Your task to perform on an android device: Check the weather Image 0: 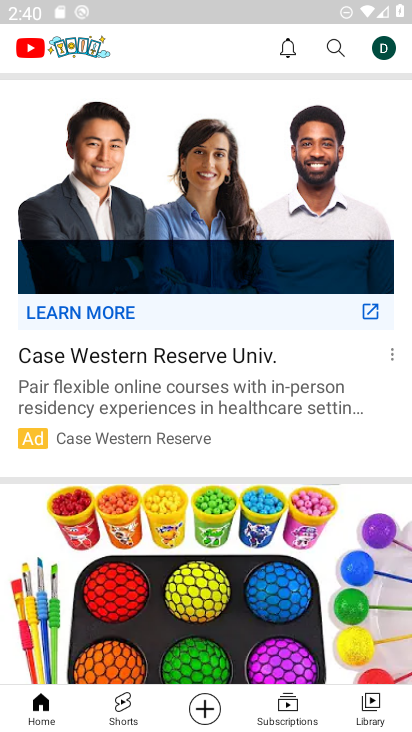
Step 0: press home button
Your task to perform on an android device: Check the weather Image 1: 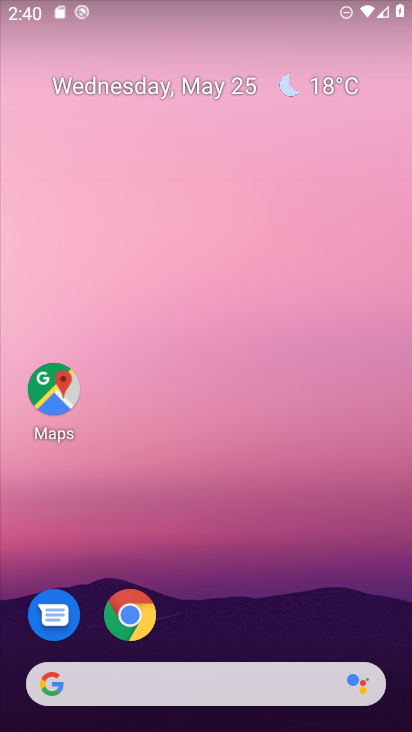
Step 1: click (273, 688)
Your task to perform on an android device: Check the weather Image 2: 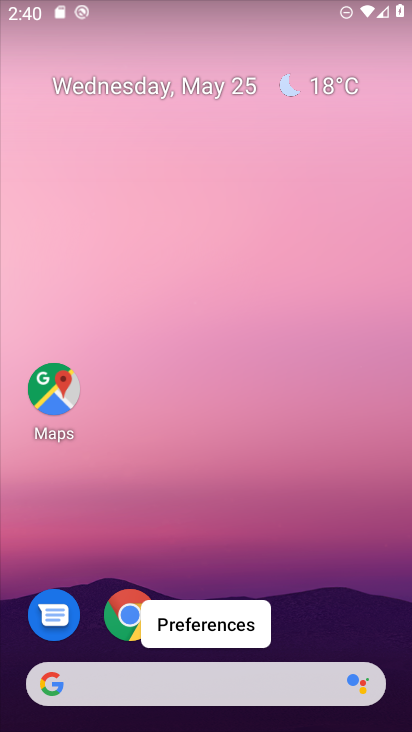
Step 2: click (170, 689)
Your task to perform on an android device: Check the weather Image 3: 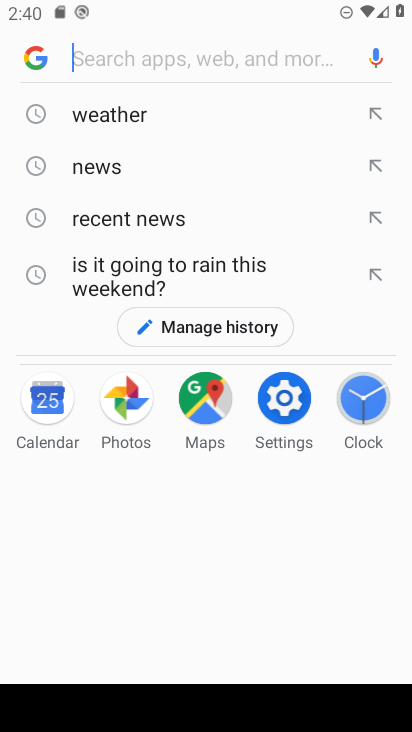
Step 3: click (113, 111)
Your task to perform on an android device: Check the weather Image 4: 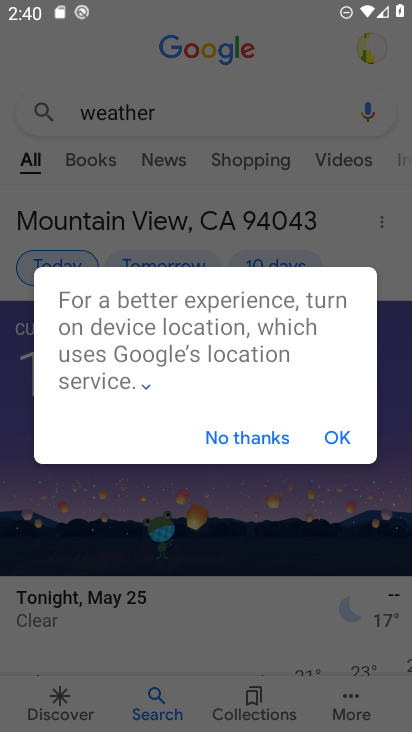
Step 4: click (259, 434)
Your task to perform on an android device: Check the weather Image 5: 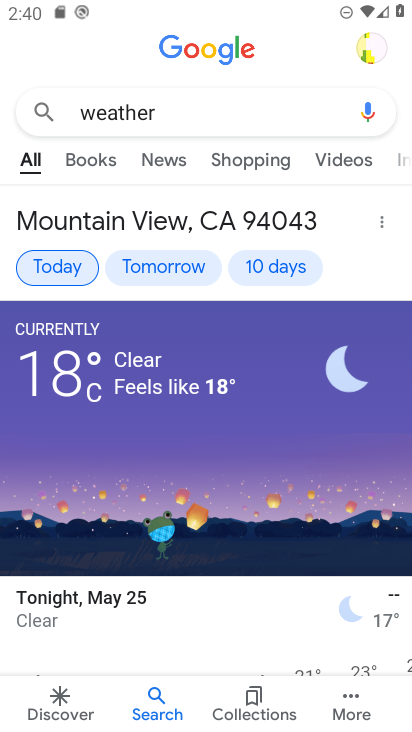
Step 5: click (69, 266)
Your task to perform on an android device: Check the weather Image 6: 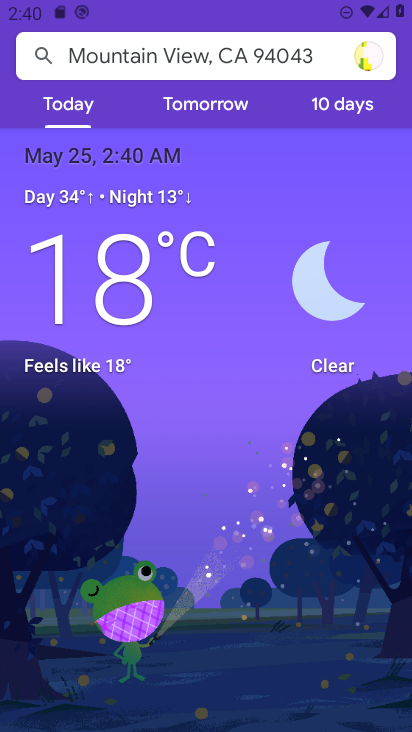
Step 6: task complete